Your task to perform on an android device: Open Amazon Image 0: 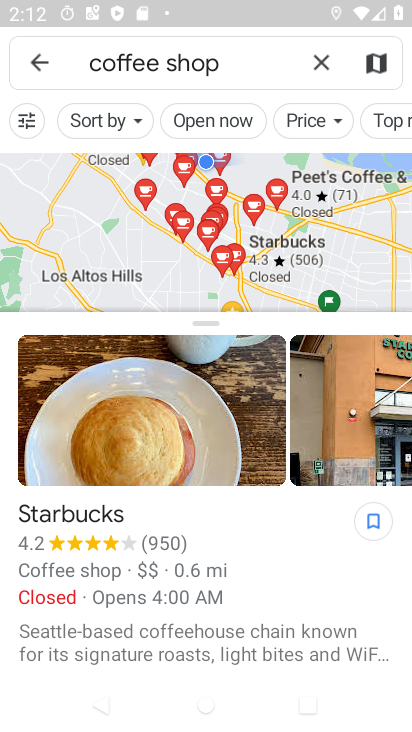
Step 0: press home button
Your task to perform on an android device: Open Amazon Image 1: 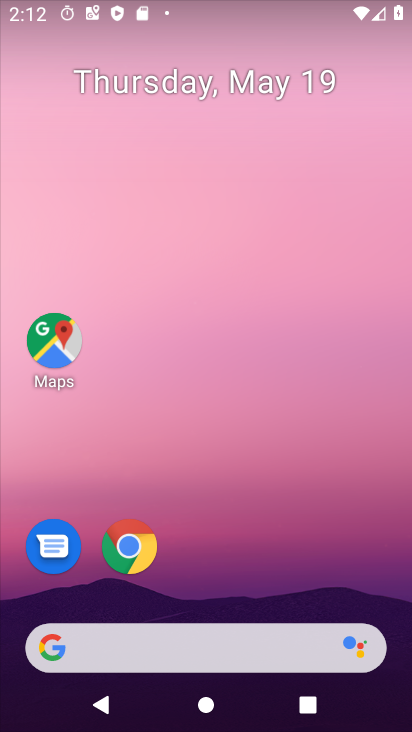
Step 1: click (132, 553)
Your task to perform on an android device: Open Amazon Image 2: 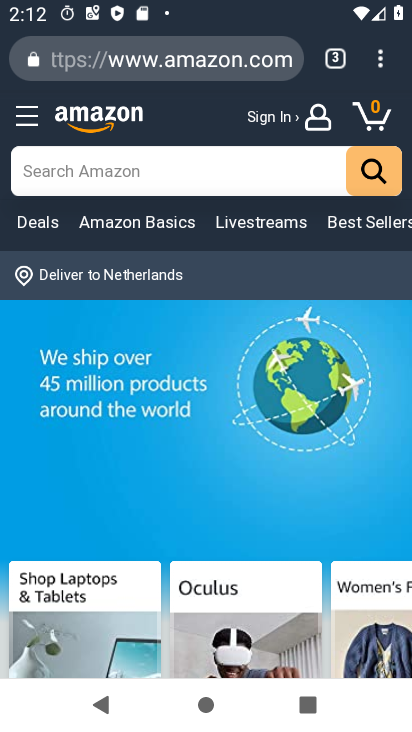
Step 2: task complete